Your task to perform on an android device: Add bose soundlink mini to the cart on target.com Image 0: 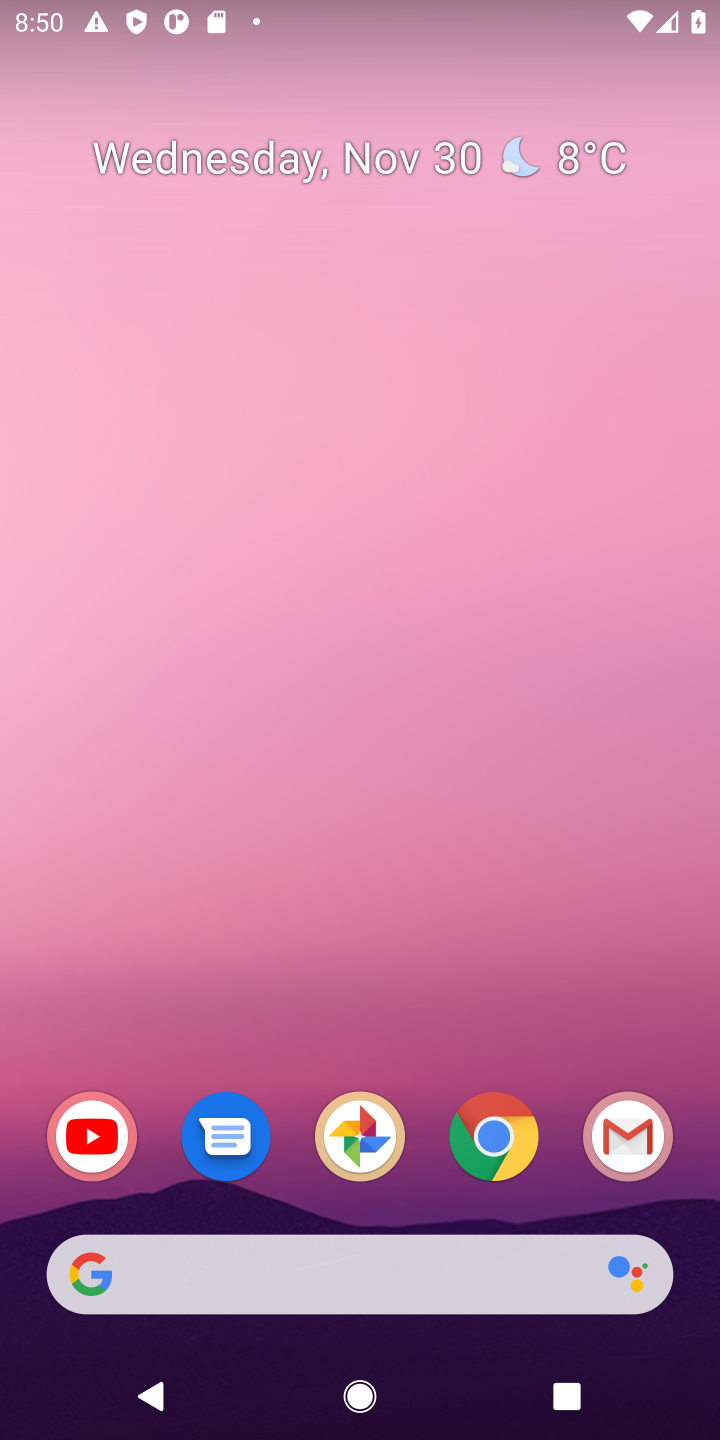
Step 0: click (494, 1149)
Your task to perform on an android device: Add bose soundlink mini to the cart on target.com Image 1: 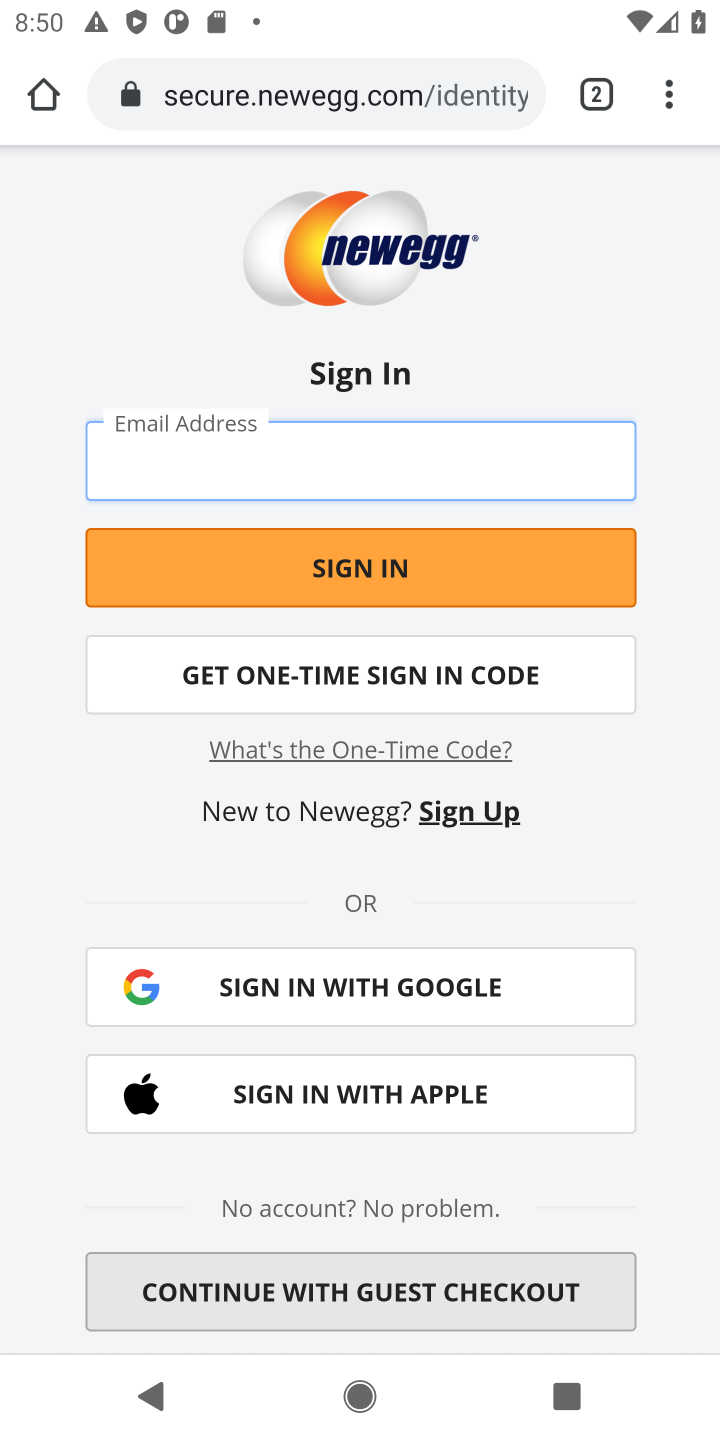
Step 1: click (327, 92)
Your task to perform on an android device: Add bose soundlink mini to the cart on target.com Image 2: 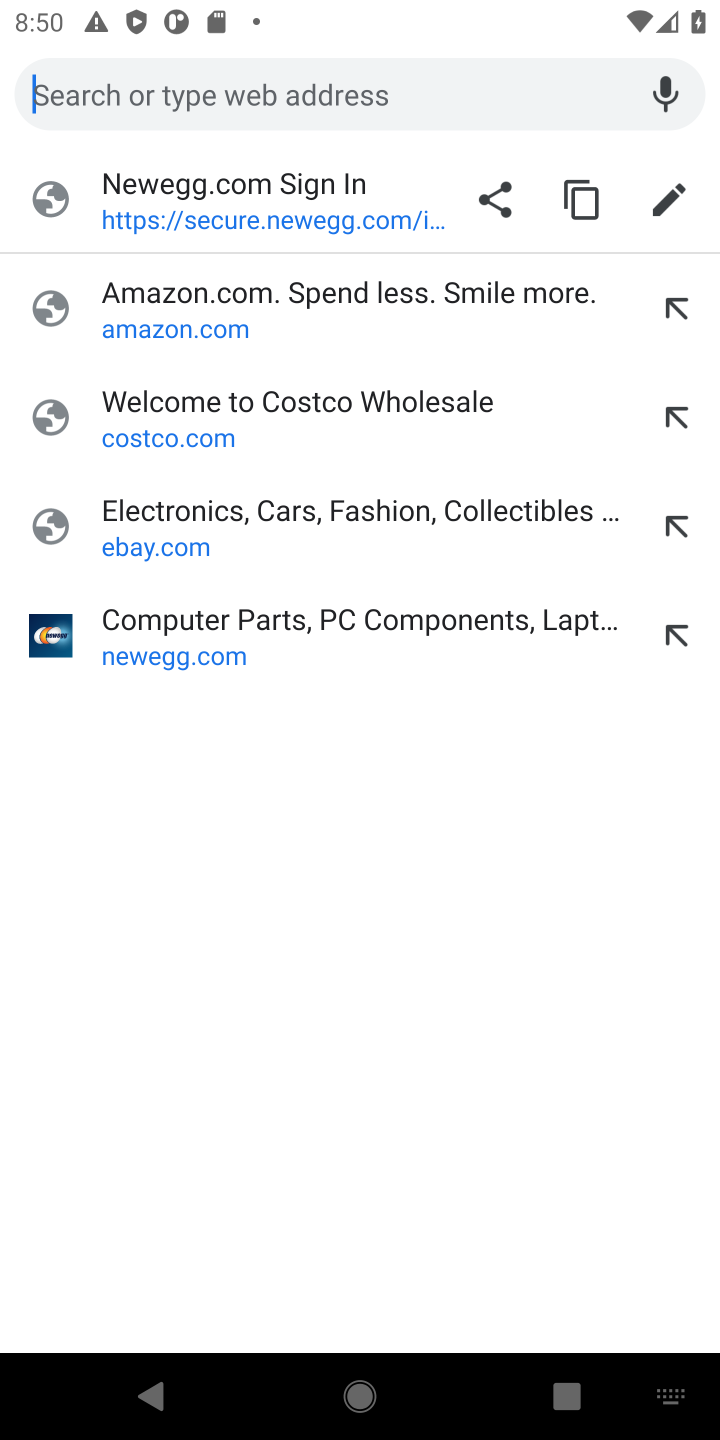
Step 2: type "target.com"
Your task to perform on an android device: Add bose soundlink mini to the cart on target.com Image 3: 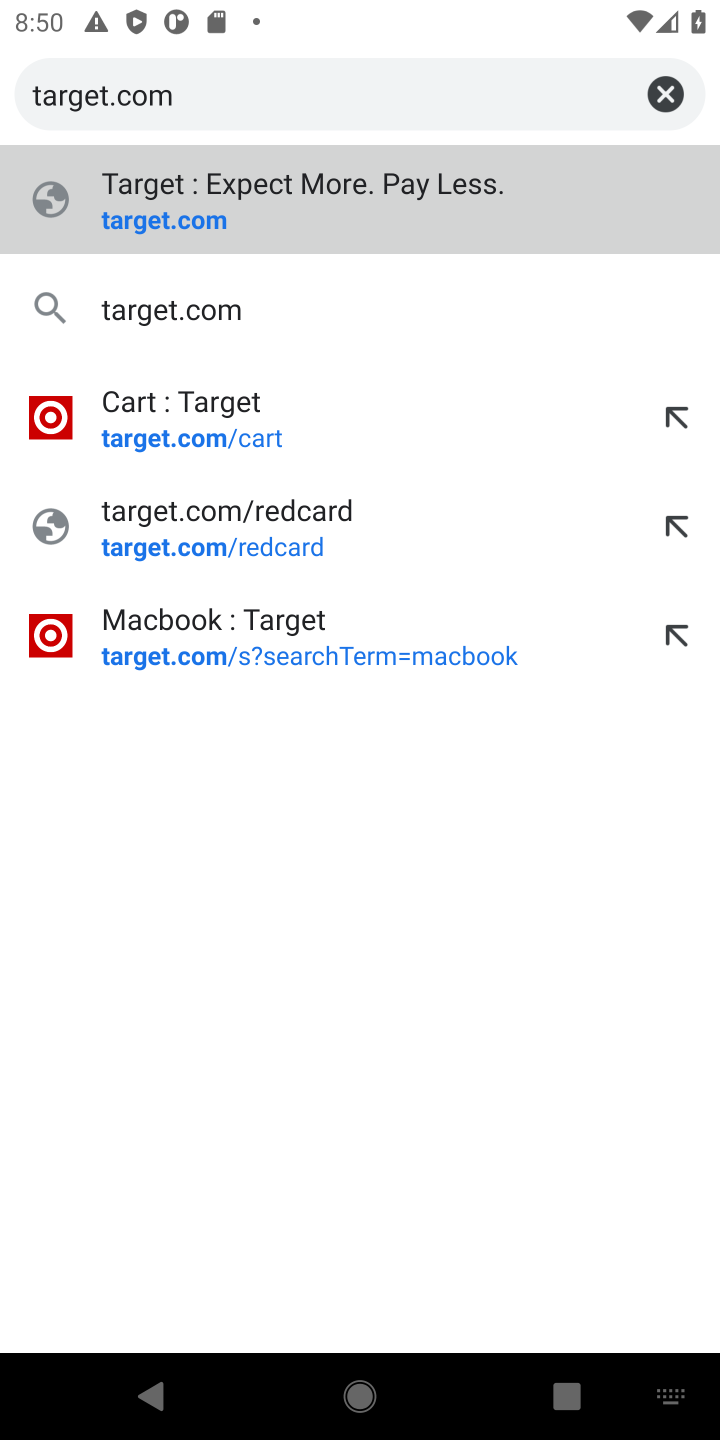
Step 3: click (142, 209)
Your task to perform on an android device: Add bose soundlink mini to the cart on target.com Image 4: 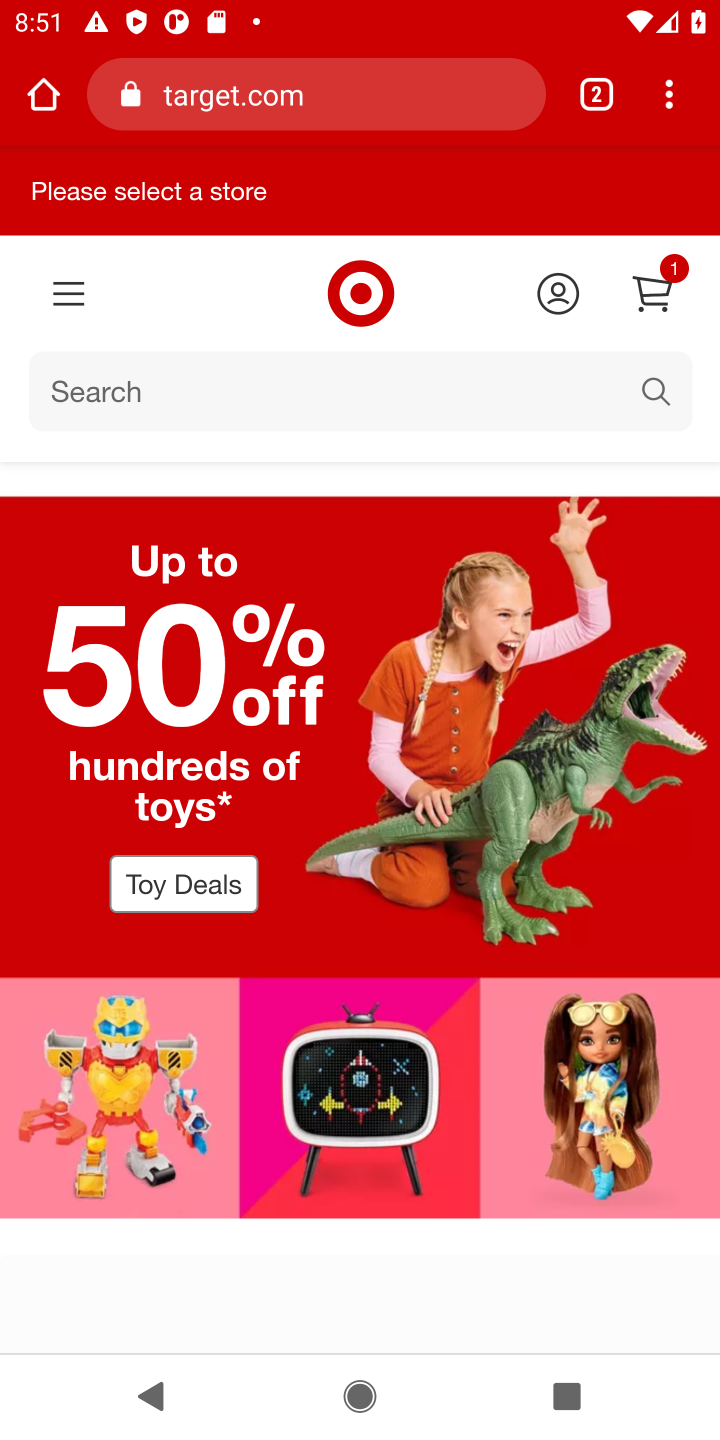
Step 4: click (58, 396)
Your task to perform on an android device: Add bose soundlink mini to the cart on target.com Image 5: 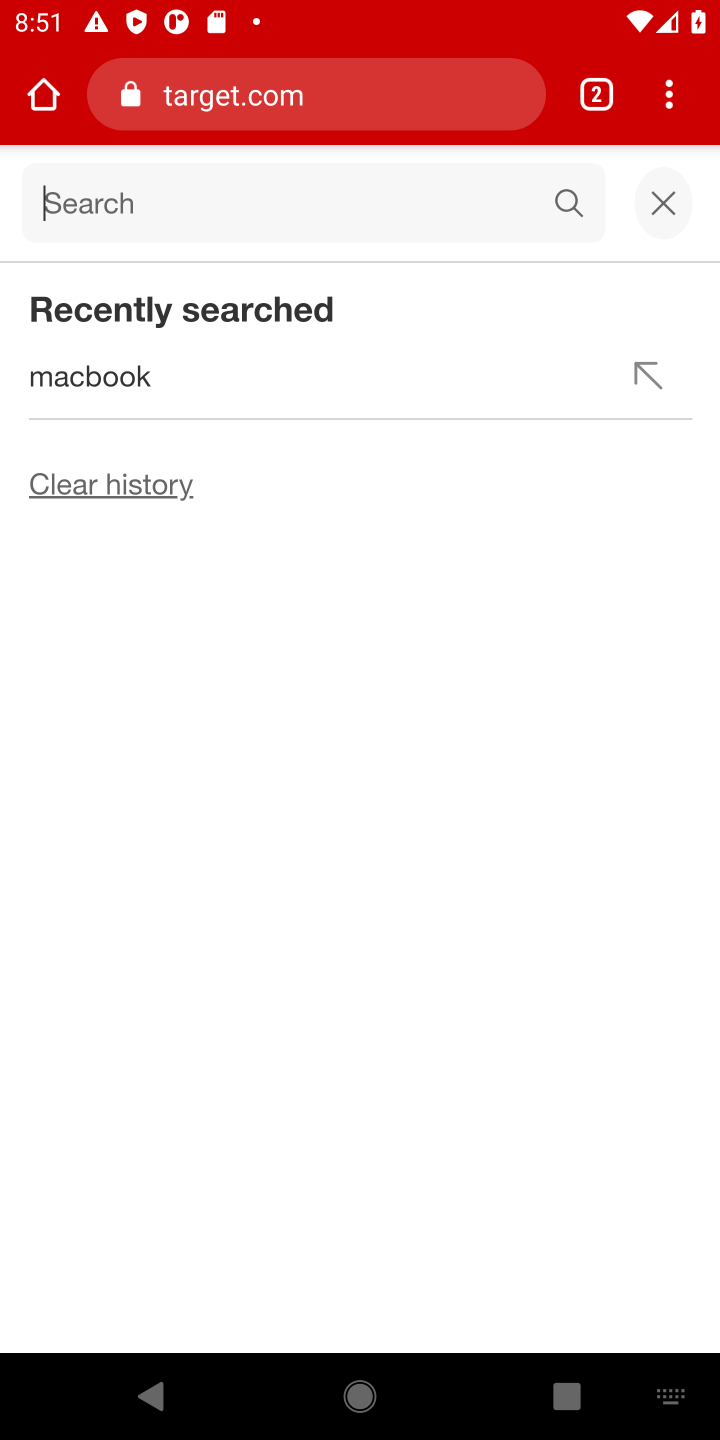
Step 5: type "bose soundlink mini "
Your task to perform on an android device: Add bose soundlink mini to the cart on target.com Image 6: 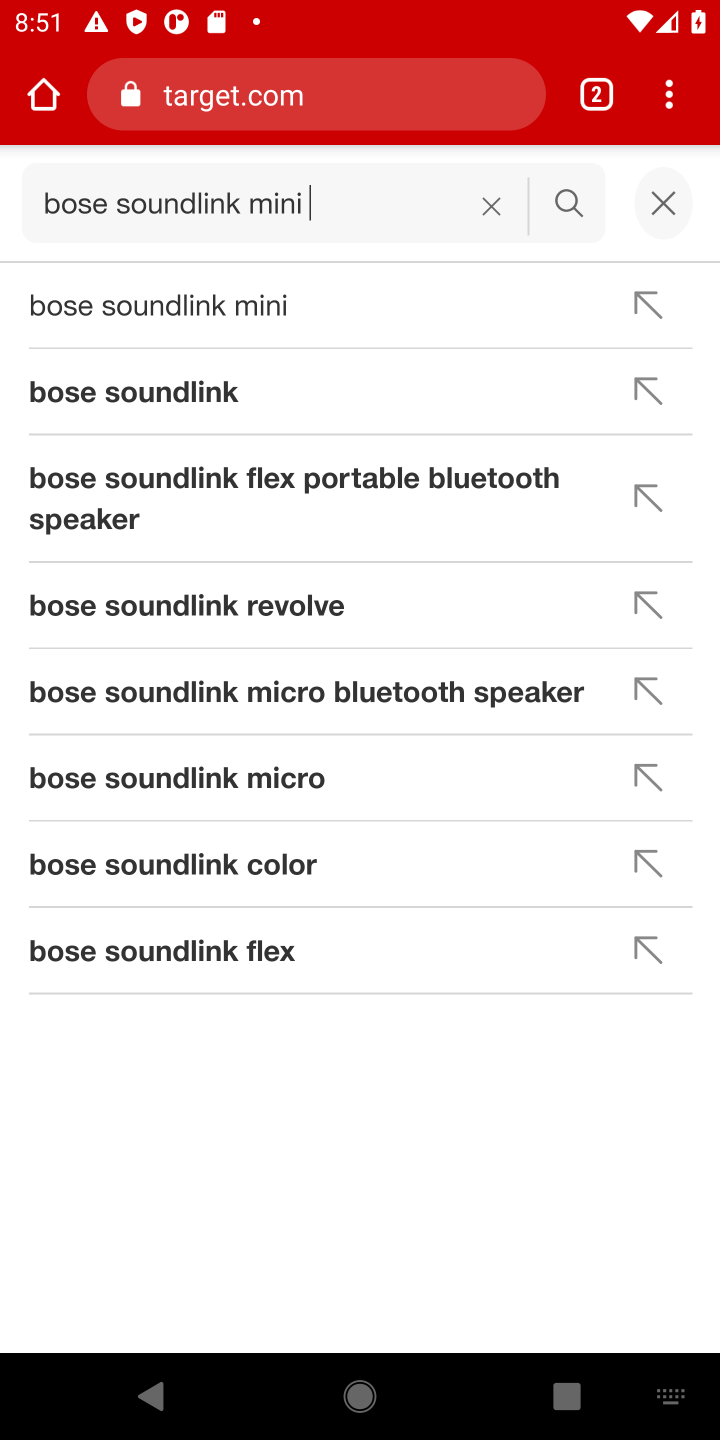
Step 6: click (205, 321)
Your task to perform on an android device: Add bose soundlink mini to the cart on target.com Image 7: 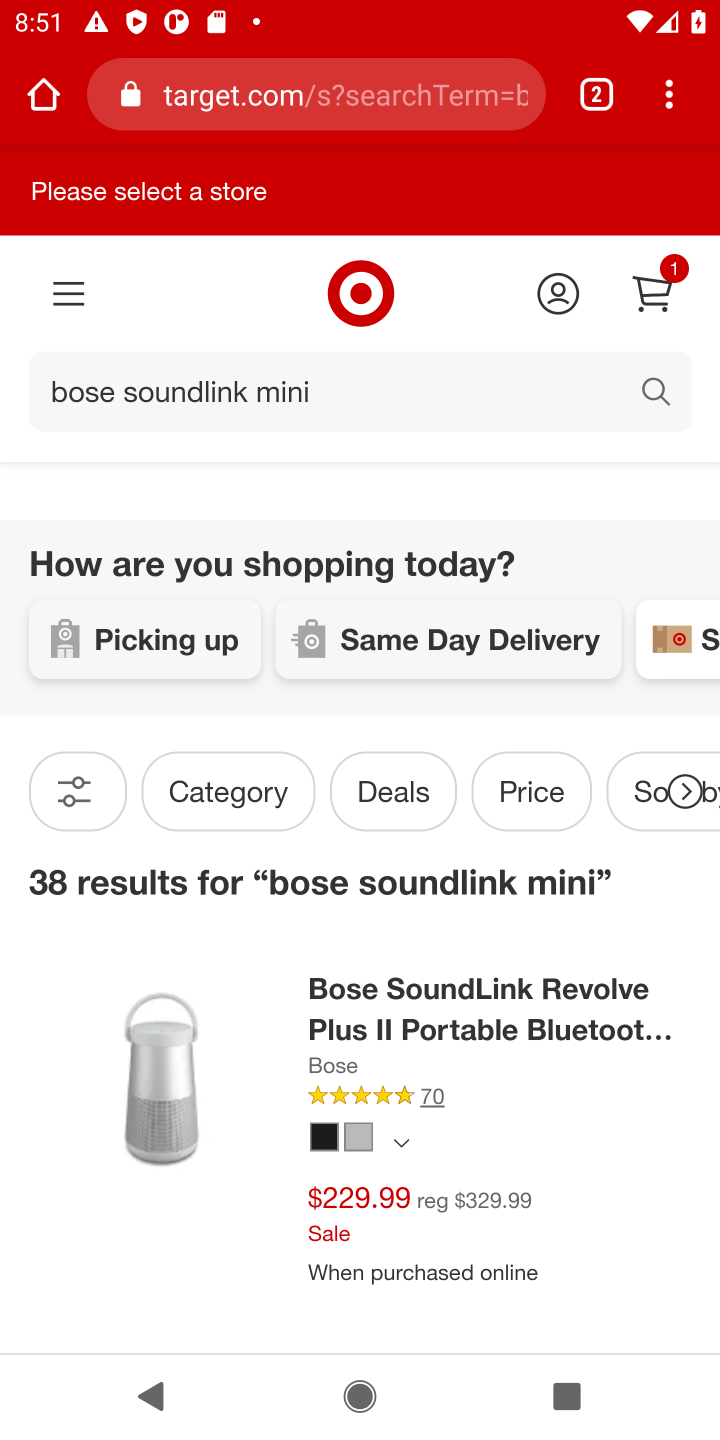
Step 7: task complete